Your task to perform on an android device: Go to Google Image 0: 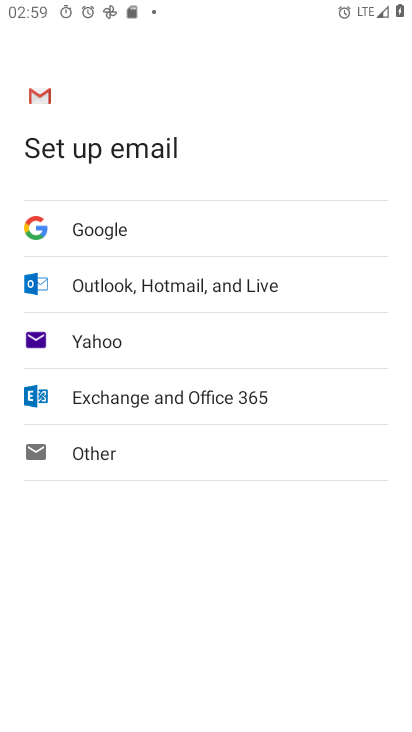
Step 0: press home button
Your task to perform on an android device: Go to Google Image 1: 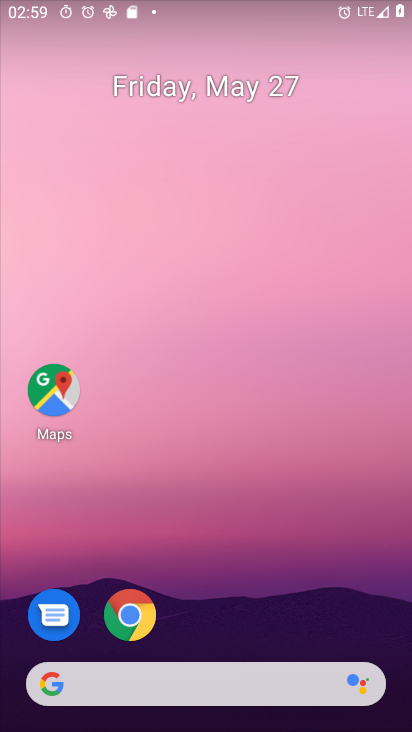
Step 1: drag from (343, 609) to (345, 305)
Your task to perform on an android device: Go to Google Image 2: 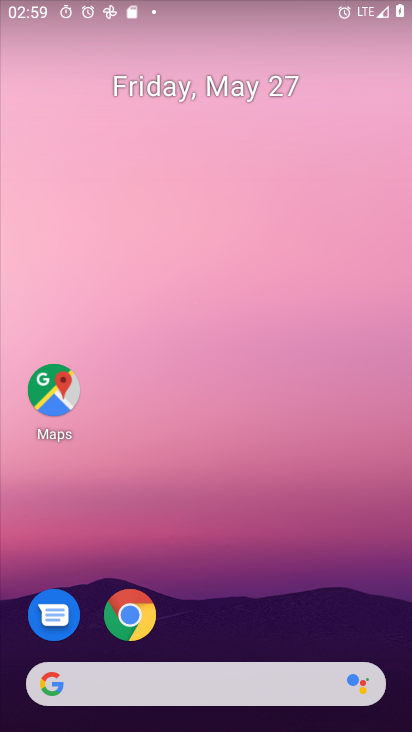
Step 2: drag from (353, 571) to (354, 248)
Your task to perform on an android device: Go to Google Image 3: 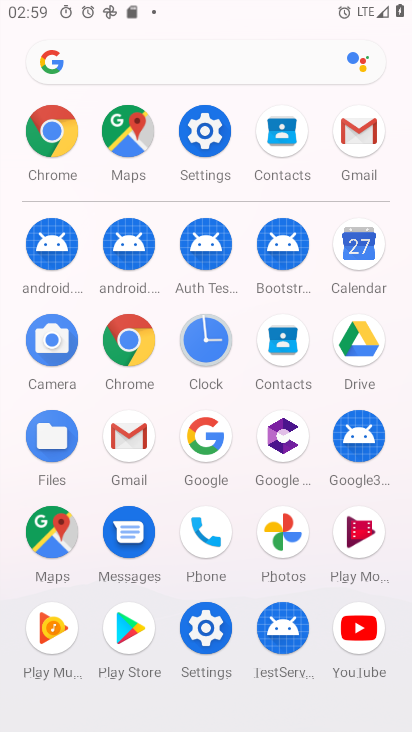
Step 3: click (202, 457)
Your task to perform on an android device: Go to Google Image 4: 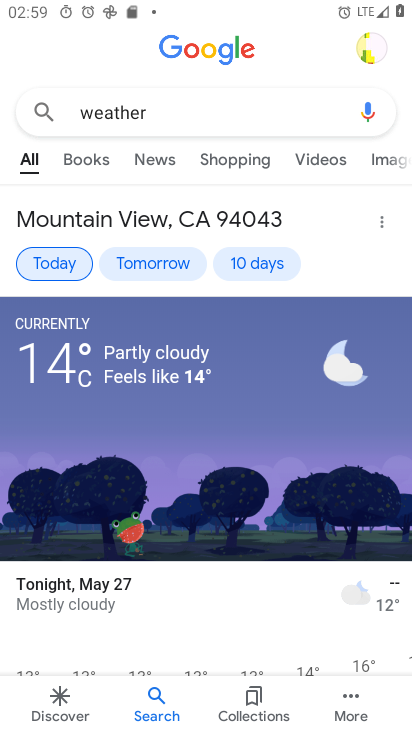
Step 4: task complete